Your task to perform on an android device: turn off smart reply in the gmail app Image 0: 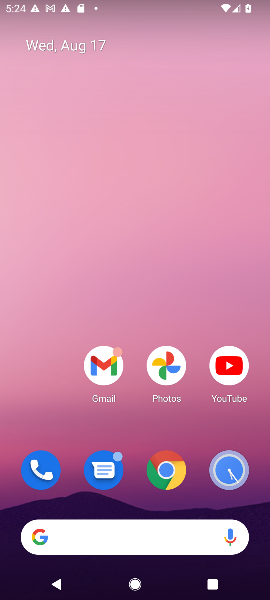
Step 0: drag from (128, 432) to (97, 4)
Your task to perform on an android device: turn off smart reply in the gmail app Image 1: 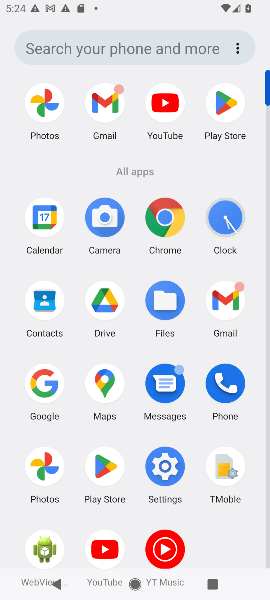
Step 1: click (218, 307)
Your task to perform on an android device: turn off smart reply in the gmail app Image 2: 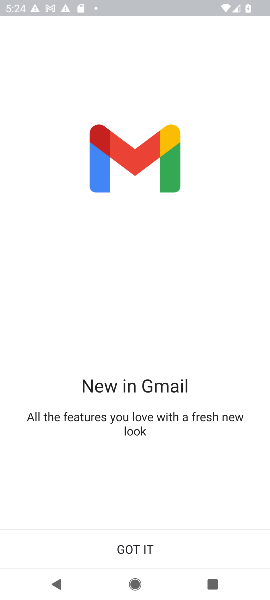
Step 2: click (178, 558)
Your task to perform on an android device: turn off smart reply in the gmail app Image 3: 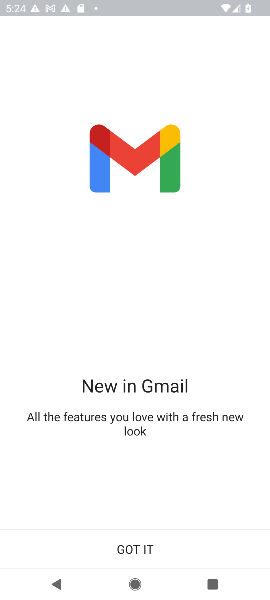
Step 3: click (152, 544)
Your task to perform on an android device: turn off smart reply in the gmail app Image 4: 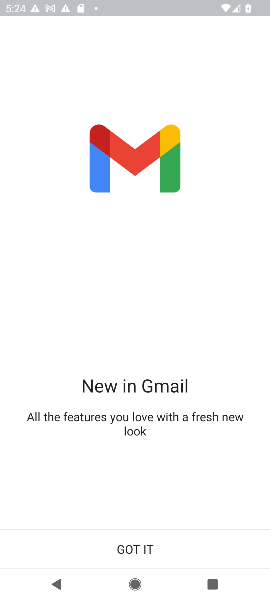
Step 4: click (148, 543)
Your task to perform on an android device: turn off smart reply in the gmail app Image 5: 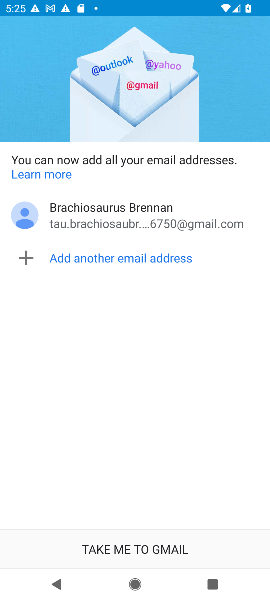
Step 5: click (149, 544)
Your task to perform on an android device: turn off smart reply in the gmail app Image 6: 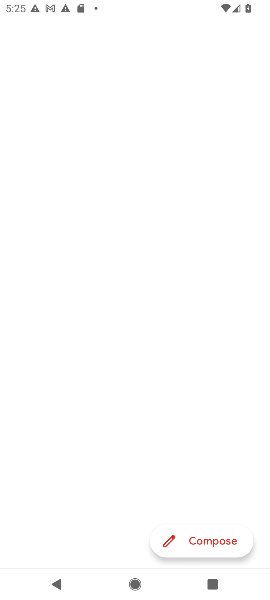
Step 6: drag from (132, 204) to (131, 285)
Your task to perform on an android device: turn off smart reply in the gmail app Image 7: 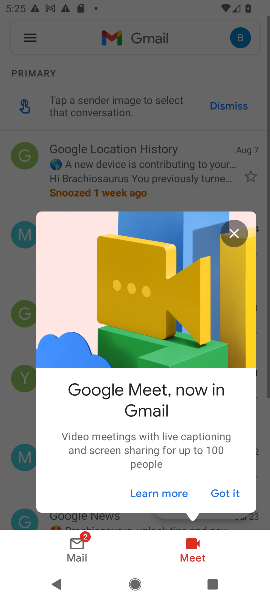
Step 7: click (236, 230)
Your task to perform on an android device: turn off smart reply in the gmail app Image 8: 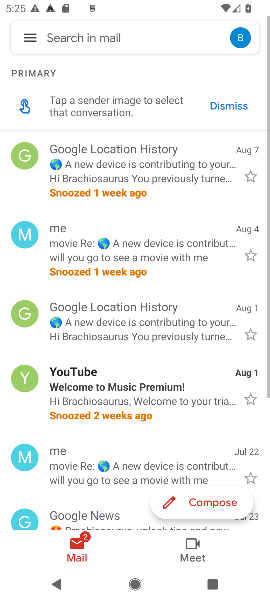
Step 8: click (26, 40)
Your task to perform on an android device: turn off smart reply in the gmail app Image 9: 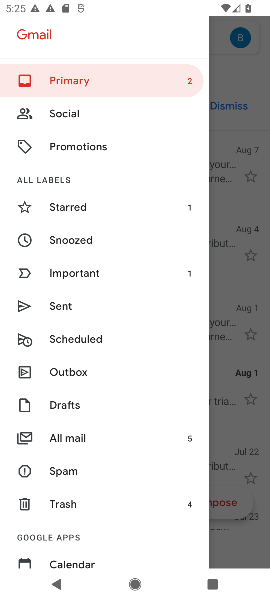
Step 9: drag from (140, 512) to (104, 17)
Your task to perform on an android device: turn off smart reply in the gmail app Image 10: 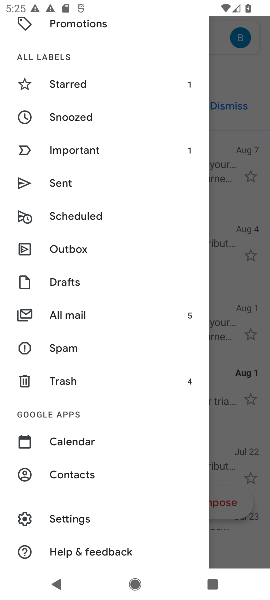
Step 10: click (80, 521)
Your task to perform on an android device: turn off smart reply in the gmail app Image 11: 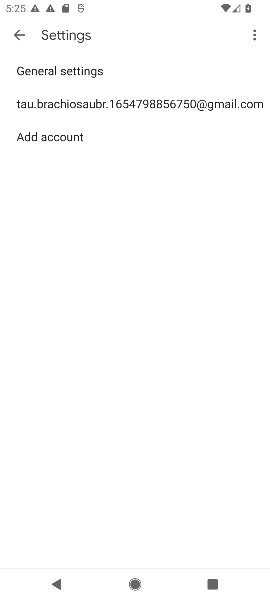
Step 11: click (87, 108)
Your task to perform on an android device: turn off smart reply in the gmail app Image 12: 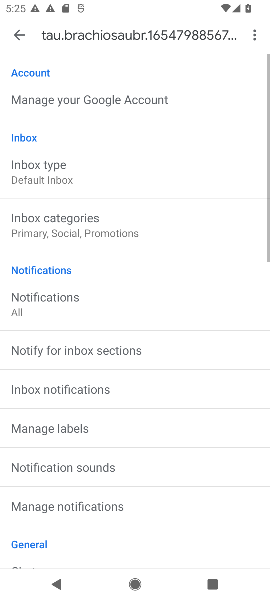
Step 12: drag from (114, 423) to (124, 165)
Your task to perform on an android device: turn off smart reply in the gmail app Image 13: 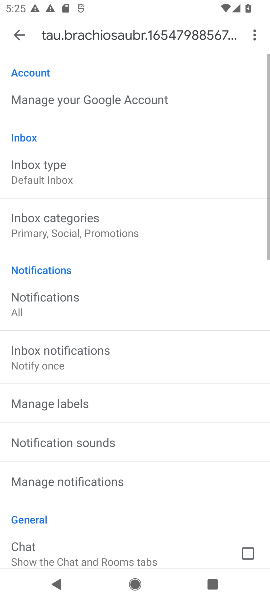
Step 13: drag from (101, 476) to (146, 172)
Your task to perform on an android device: turn off smart reply in the gmail app Image 14: 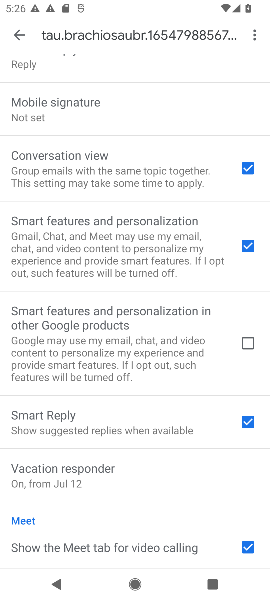
Step 14: click (235, 423)
Your task to perform on an android device: turn off smart reply in the gmail app Image 15: 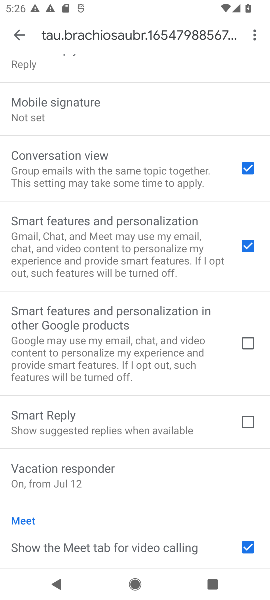
Step 15: task complete